Your task to perform on an android device: Open the stopwatch Image 0: 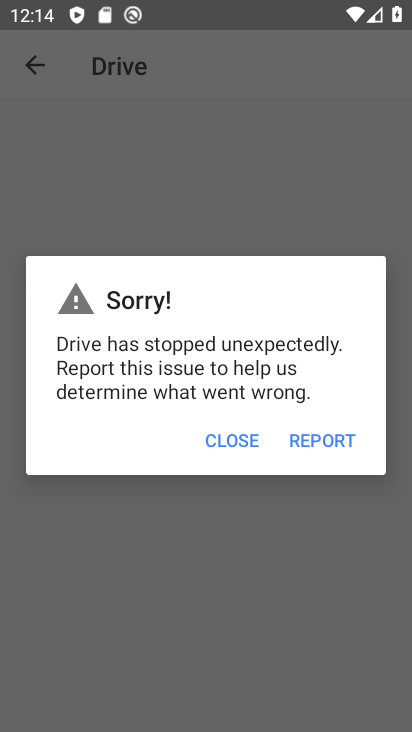
Step 0: press home button
Your task to perform on an android device: Open the stopwatch Image 1: 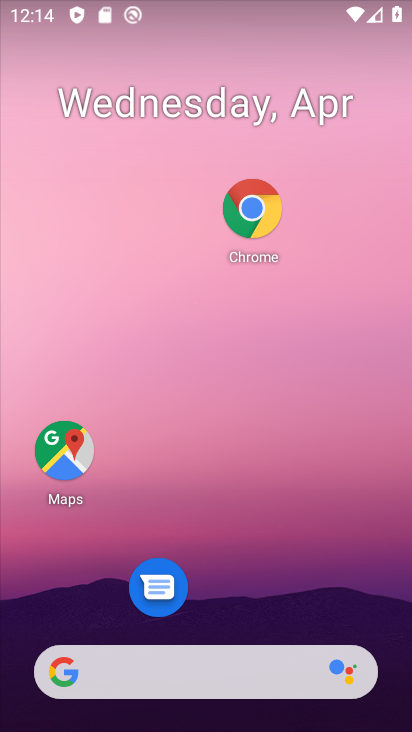
Step 1: drag from (248, 421) to (290, 244)
Your task to perform on an android device: Open the stopwatch Image 2: 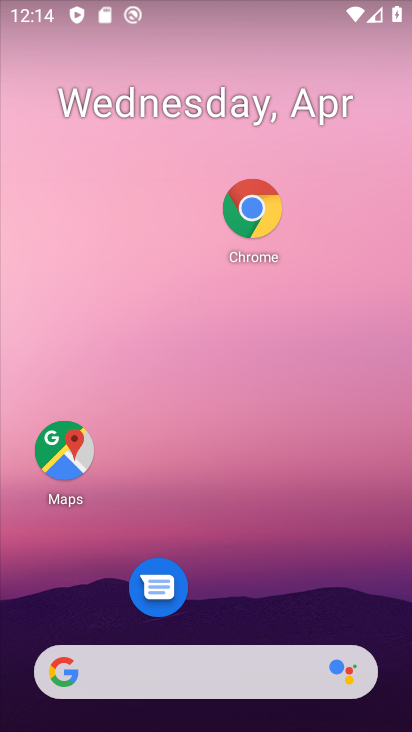
Step 2: drag from (227, 511) to (283, 182)
Your task to perform on an android device: Open the stopwatch Image 3: 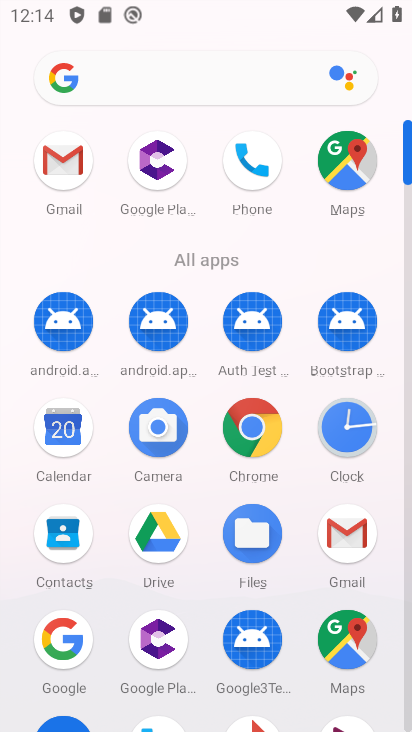
Step 3: click (349, 413)
Your task to perform on an android device: Open the stopwatch Image 4: 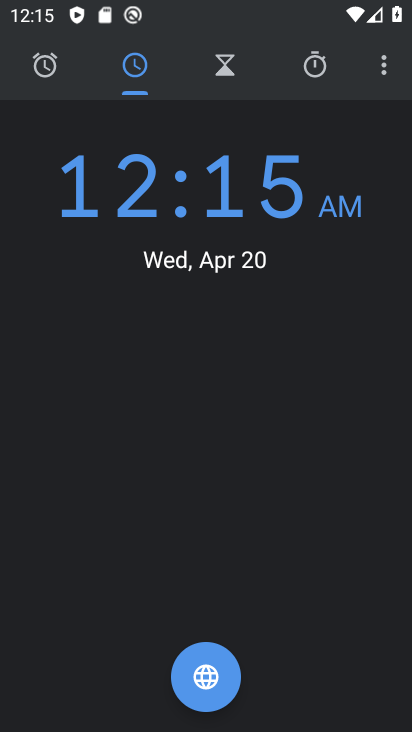
Step 4: click (298, 77)
Your task to perform on an android device: Open the stopwatch Image 5: 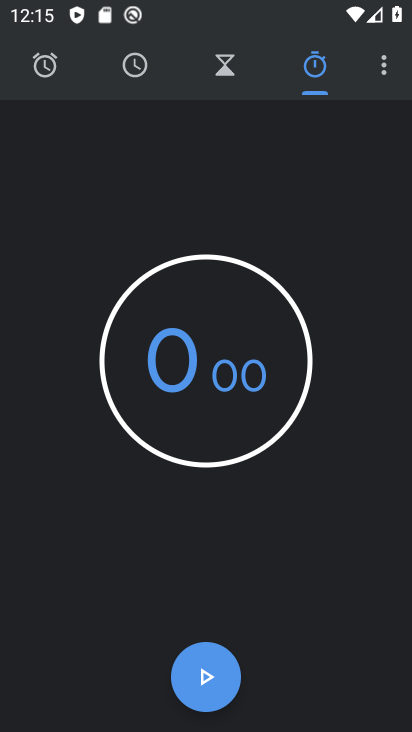
Step 5: task complete